Your task to perform on an android device: turn notification dots on Image 0: 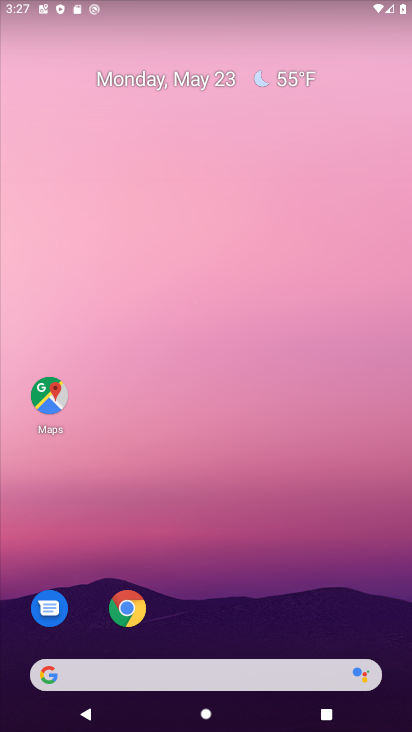
Step 0: drag from (314, 600) to (143, 29)
Your task to perform on an android device: turn notification dots on Image 1: 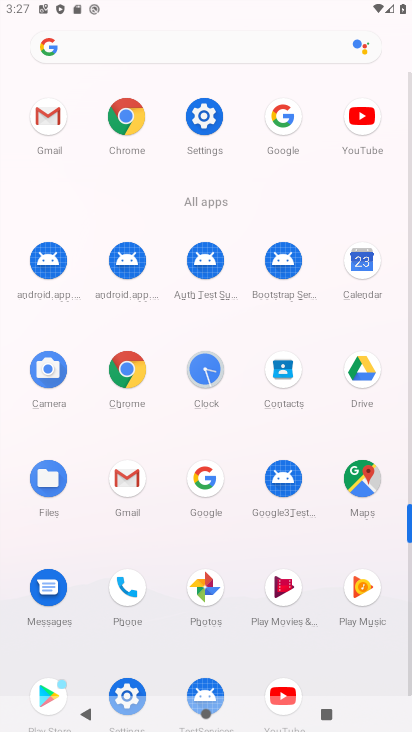
Step 1: click (202, 103)
Your task to perform on an android device: turn notification dots on Image 2: 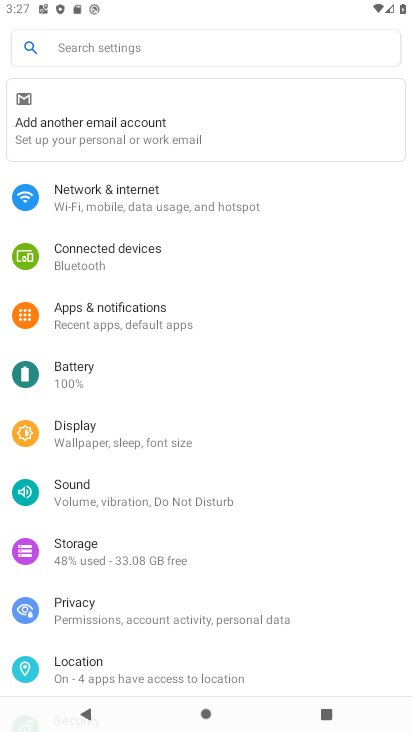
Step 2: click (147, 306)
Your task to perform on an android device: turn notification dots on Image 3: 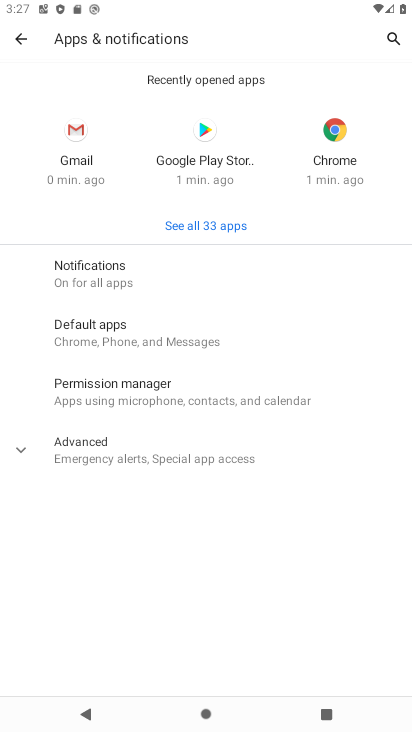
Step 3: click (147, 274)
Your task to perform on an android device: turn notification dots on Image 4: 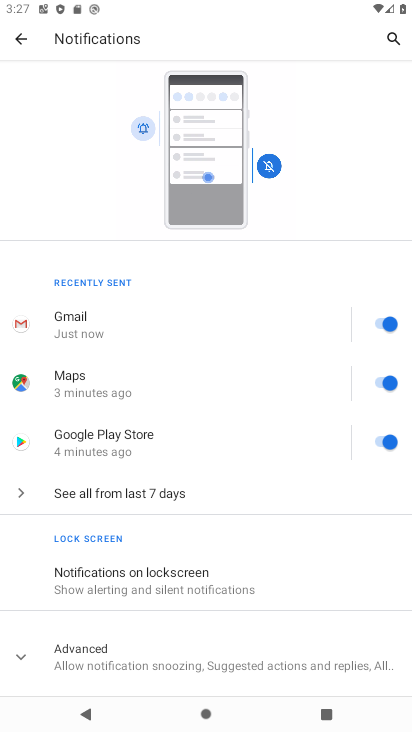
Step 4: click (163, 659)
Your task to perform on an android device: turn notification dots on Image 5: 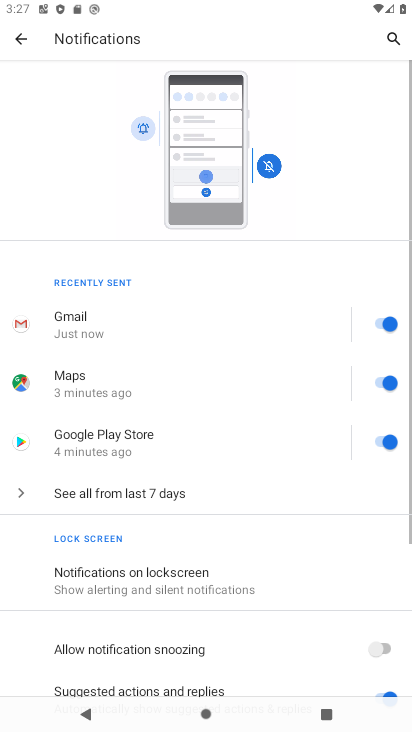
Step 5: task complete